Your task to perform on an android device: Open Yahoo.com Image 0: 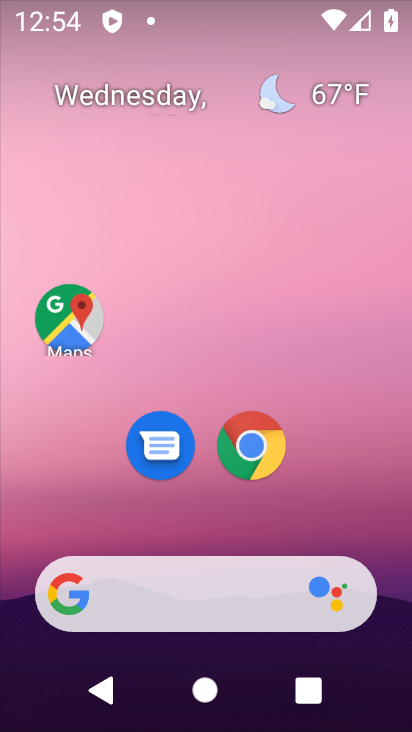
Step 0: click (238, 442)
Your task to perform on an android device: Open Yahoo.com Image 1: 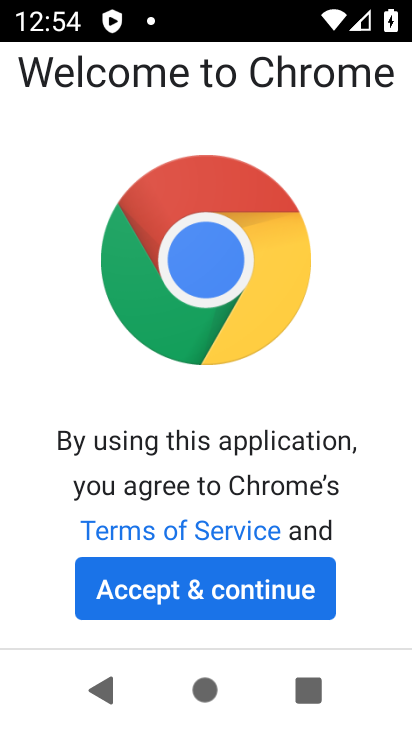
Step 1: click (222, 570)
Your task to perform on an android device: Open Yahoo.com Image 2: 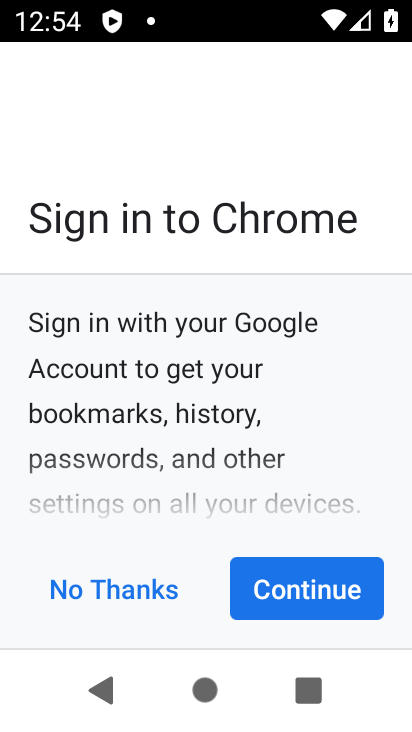
Step 2: click (287, 577)
Your task to perform on an android device: Open Yahoo.com Image 3: 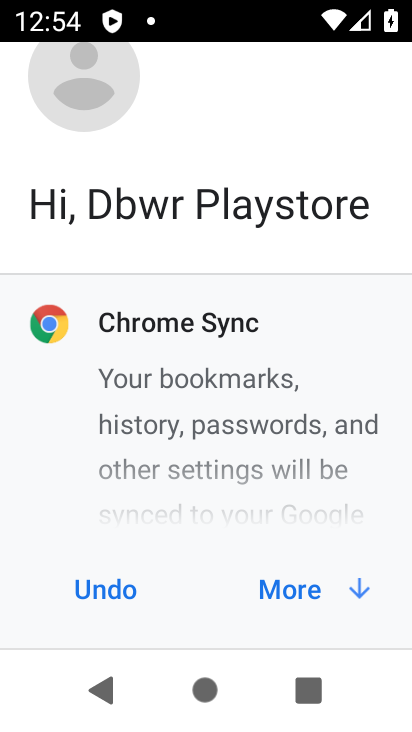
Step 3: click (287, 577)
Your task to perform on an android device: Open Yahoo.com Image 4: 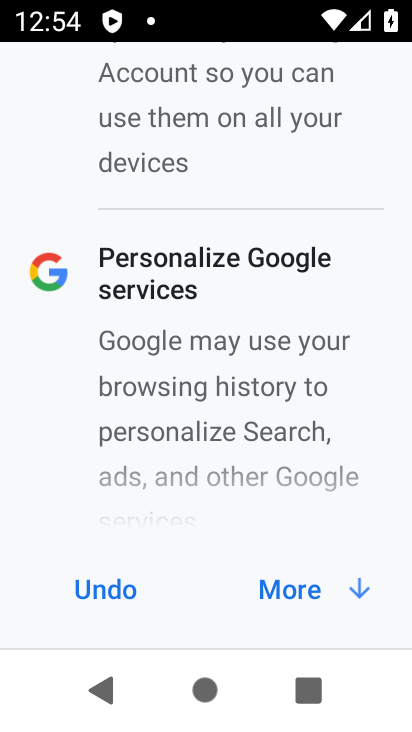
Step 4: click (287, 577)
Your task to perform on an android device: Open Yahoo.com Image 5: 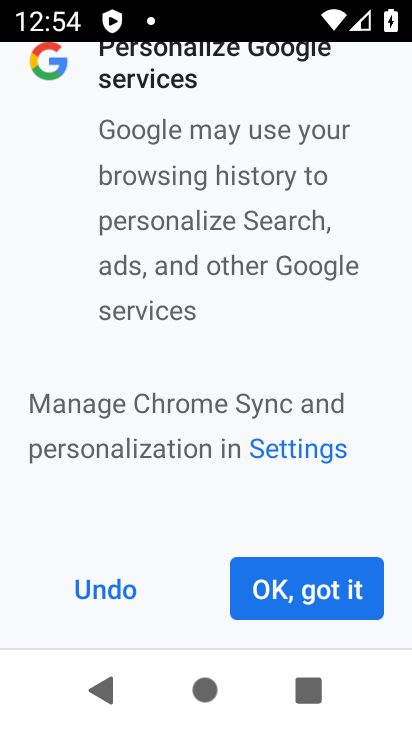
Step 5: click (287, 577)
Your task to perform on an android device: Open Yahoo.com Image 6: 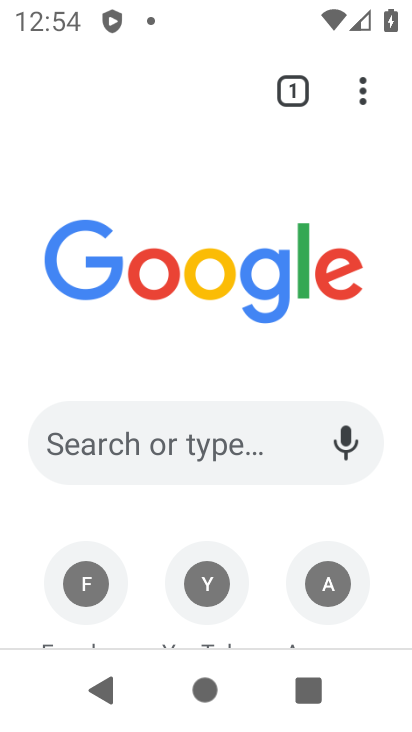
Step 6: click (146, 96)
Your task to perform on an android device: Open Yahoo.com Image 7: 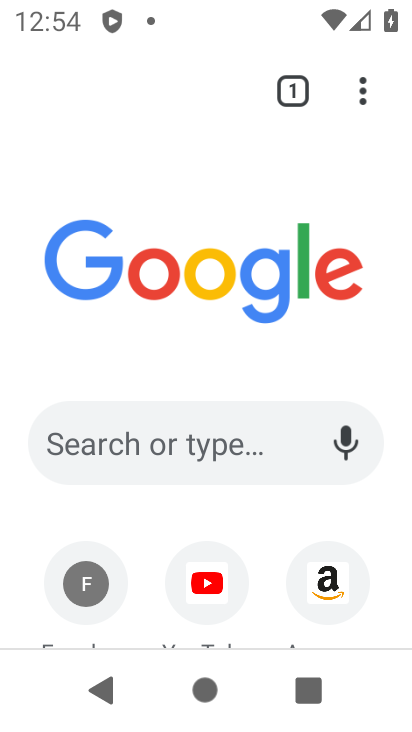
Step 7: click (231, 449)
Your task to perform on an android device: Open Yahoo.com Image 8: 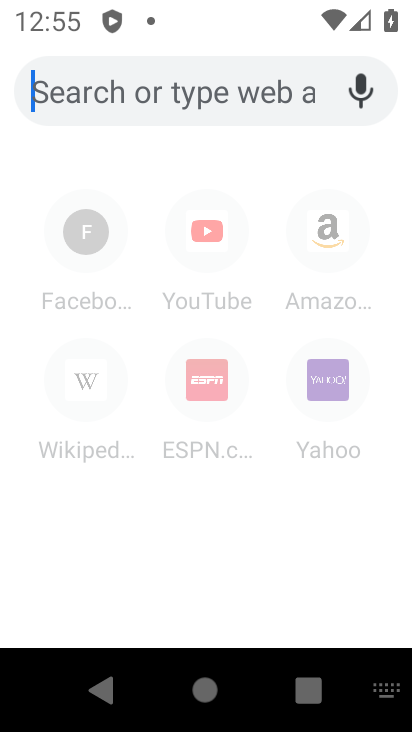
Step 8: type "yahoo.com"
Your task to perform on an android device: Open Yahoo.com Image 9: 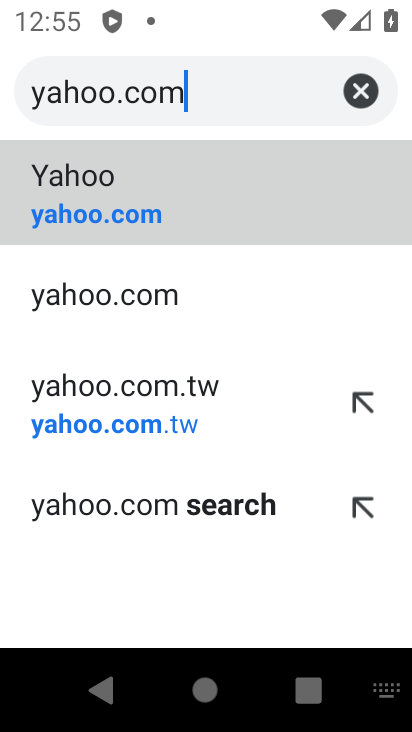
Step 9: click (147, 211)
Your task to perform on an android device: Open Yahoo.com Image 10: 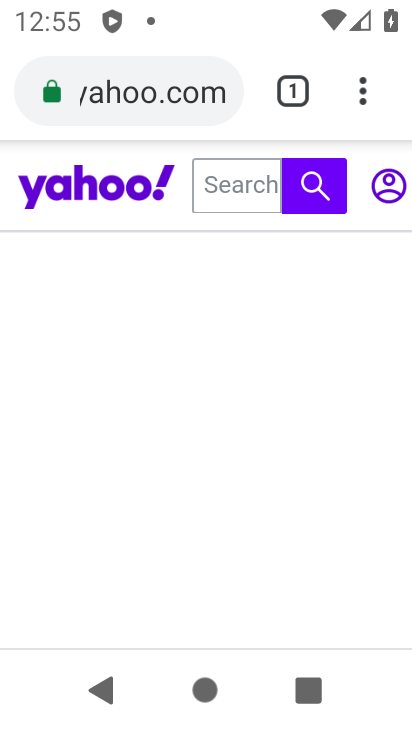
Step 10: task complete